Your task to perform on an android device: find photos in the google photos app Image 0: 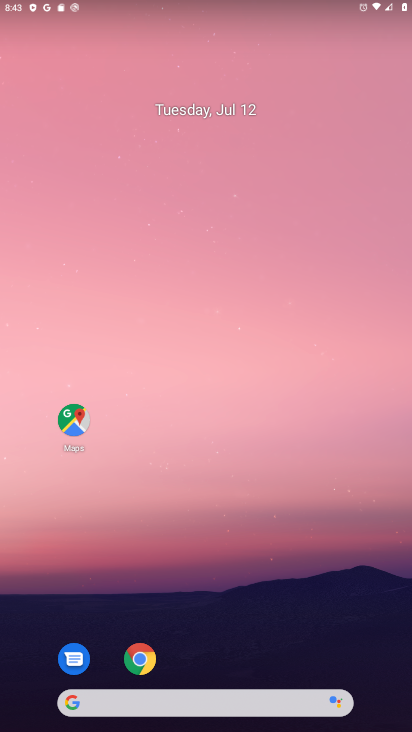
Step 0: drag from (292, 687) to (230, 266)
Your task to perform on an android device: find photos in the google photos app Image 1: 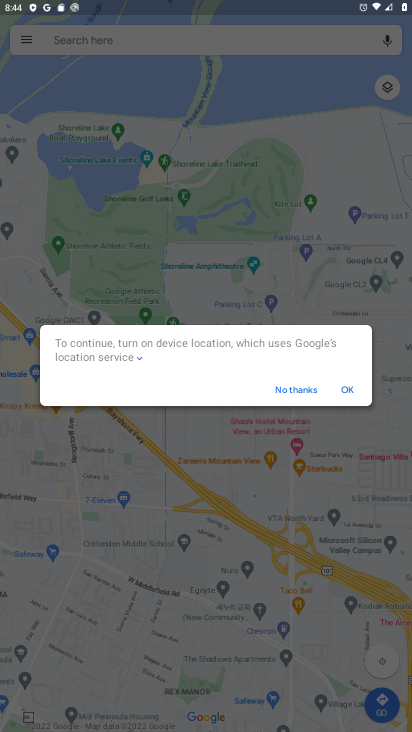
Step 1: click (296, 391)
Your task to perform on an android device: find photos in the google photos app Image 2: 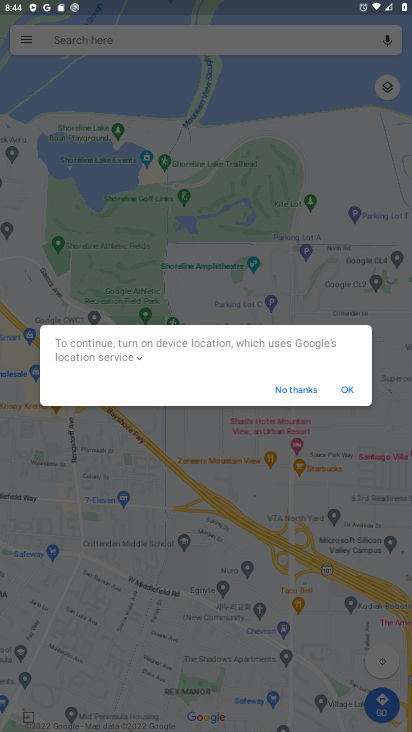
Step 2: click (346, 393)
Your task to perform on an android device: find photos in the google photos app Image 3: 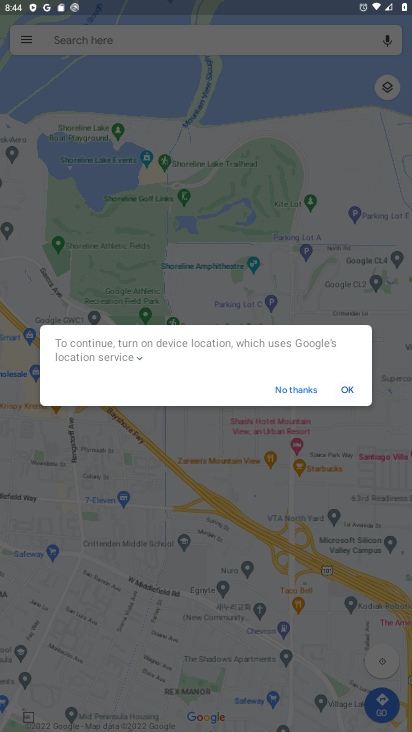
Step 3: click (346, 393)
Your task to perform on an android device: find photos in the google photos app Image 4: 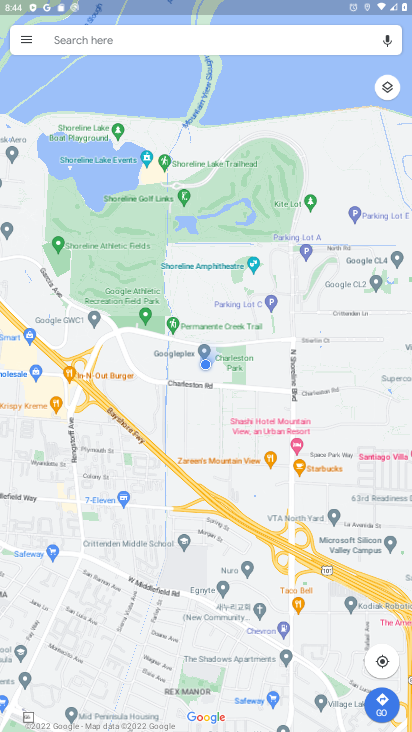
Step 4: press back button
Your task to perform on an android device: find photos in the google photos app Image 5: 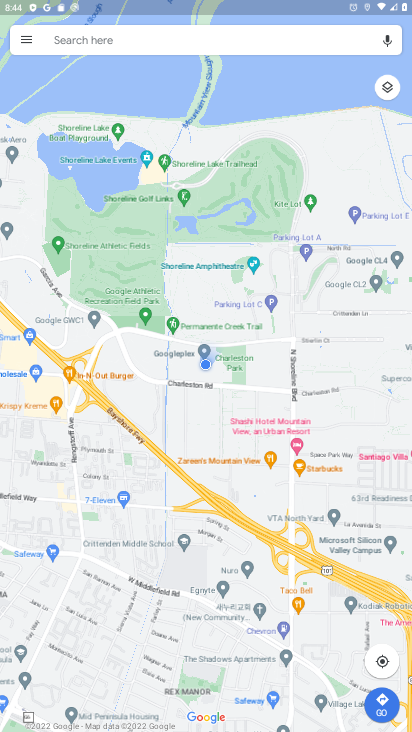
Step 5: press back button
Your task to perform on an android device: find photos in the google photos app Image 6: 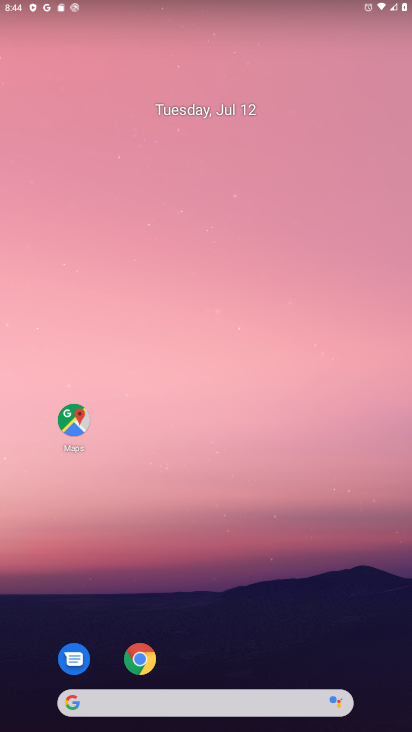
Step 6: drag from (261, 639) to (196, 78)
Your task to perform on an android device: find photos in the google photos app Image 7: 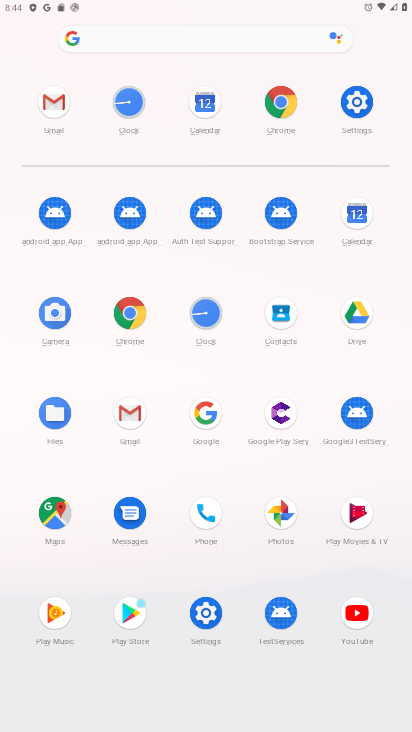
Step 7: click (279, 510)
Your task to perform on an android device: find photos in the google photos app Image 8: 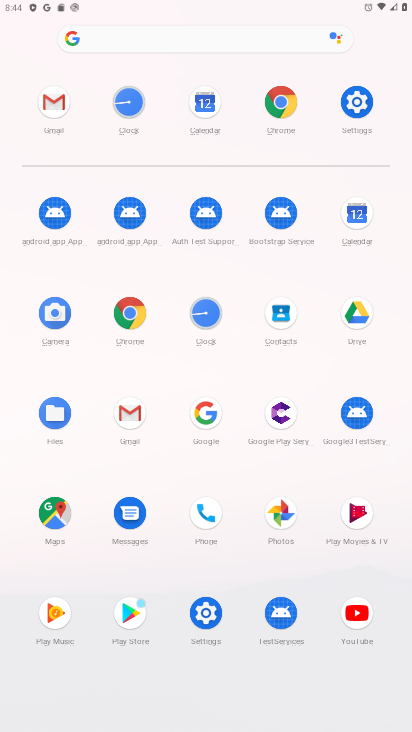
Step 8: click (280, 510)
Your task to perform on an android device: find photos in the google photos app Image 9: 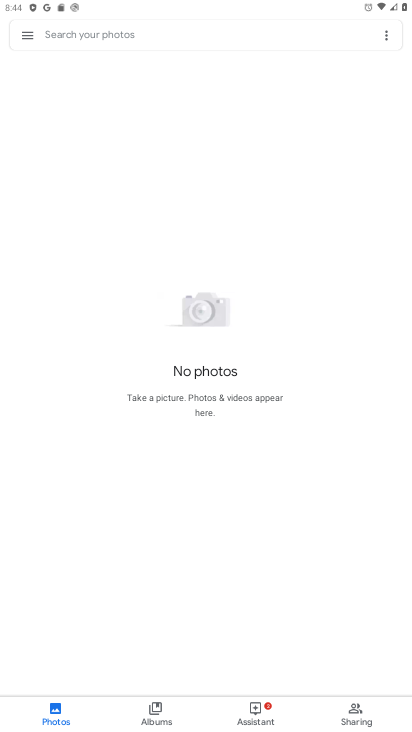
Step 9: task complete